Your task to perform on an android device: Search for pizza restaurants on Maps Image 0: 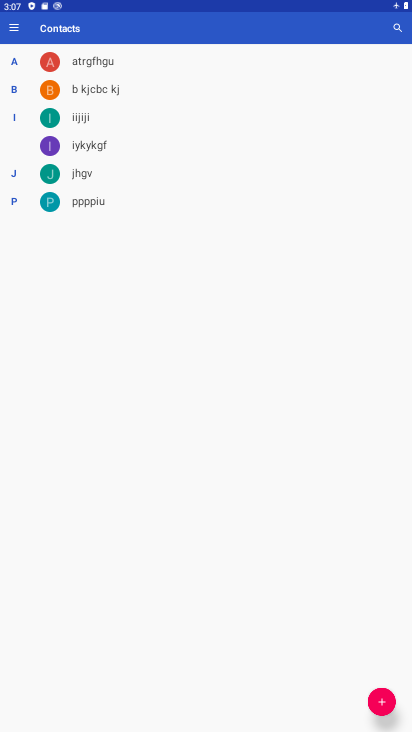
Step 0: press home button
Your task to perform on an android device: Search for pizza restaurants on Maps Image 1: 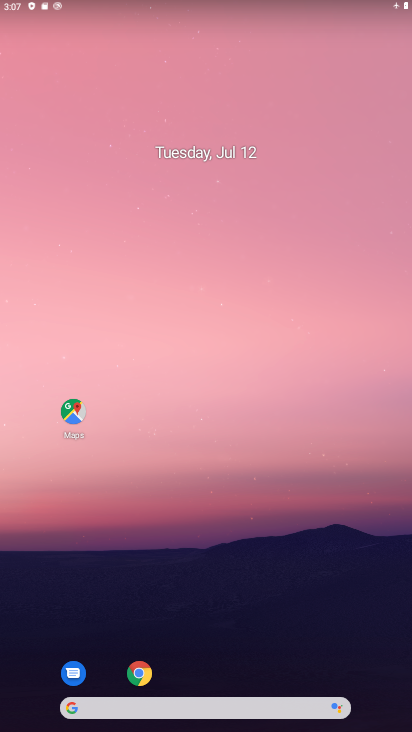
Step 1: click (71, 413)
Your task to perform on an android device: Search for pizza restaurants on Maps Image 2: 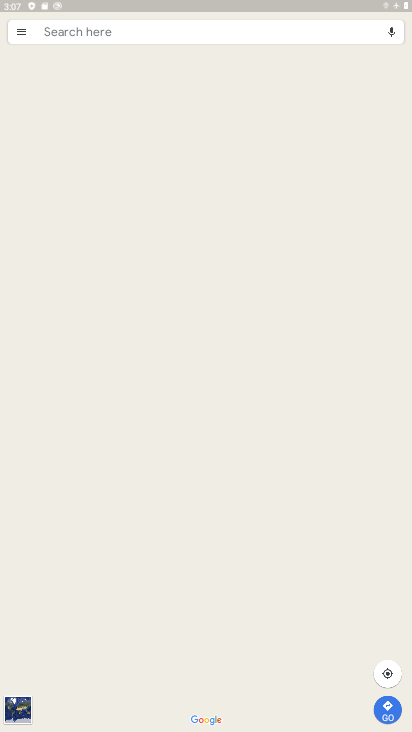
Step 2: click (194, 32)
Your task to perform on an android device: Search for pizza restaurants on Maps Image 3: 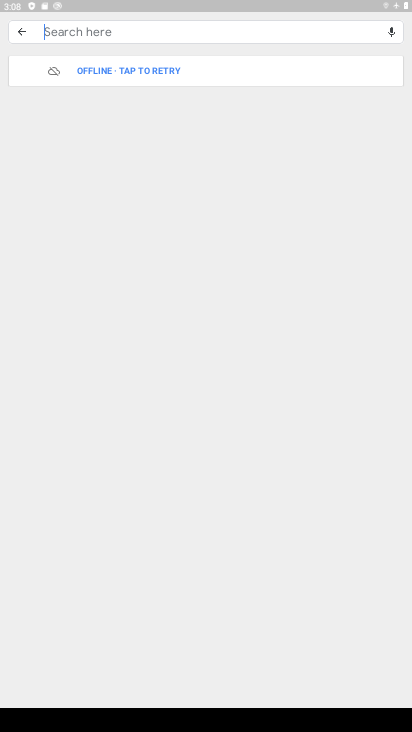
Step 3: type "pizza restaurants"
Your task to perform on an android device: Search for pizza restaurants on Maps Image 4: 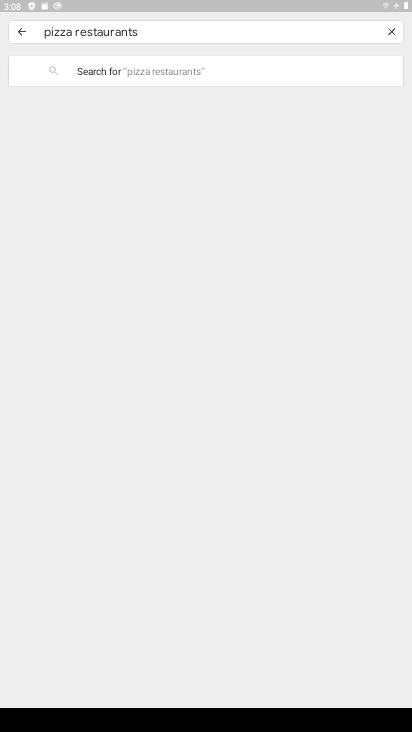
Step 4: click (157, 79)
Your task to perform on an android device: Search for pizza restaurants on Maps Image 5: 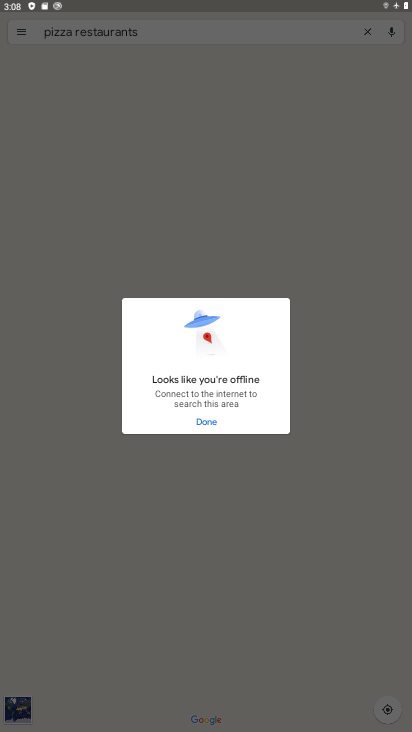
Step 5: task complete